Your task to perform on an android device: install app "Indeed Job Search" Image 0: 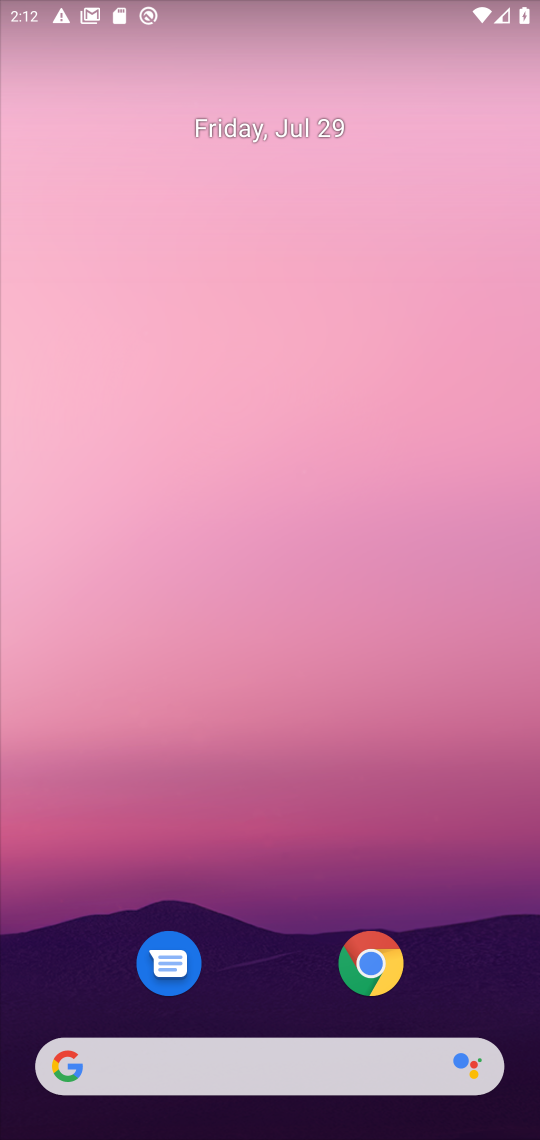
Step 0: drag from (289, 962) to (236, 7)
Your task to perform on an android device: install app "Indeed Job Search" Image 1: 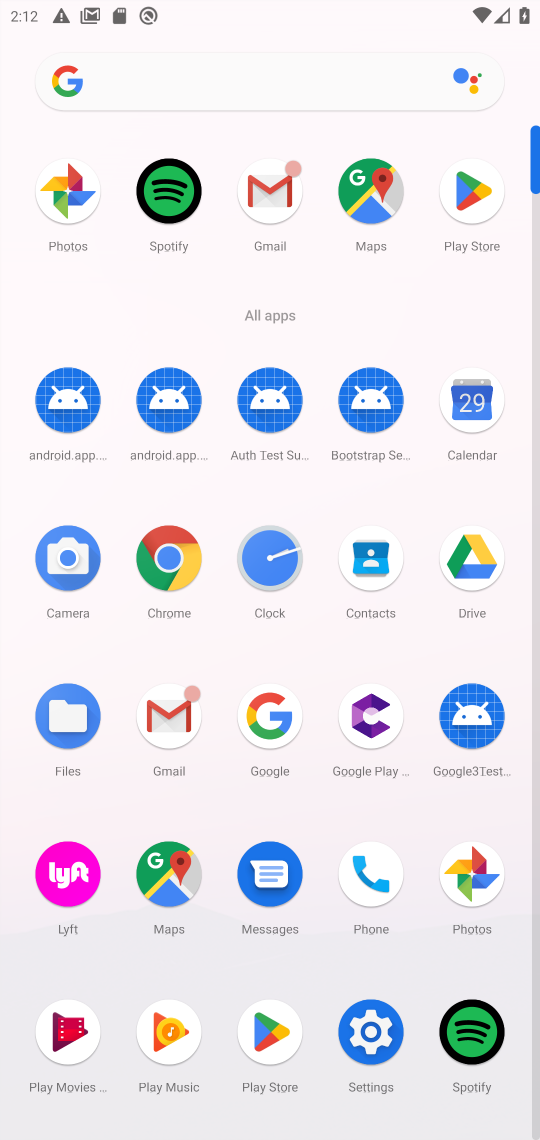
Step 1: click (468, 200)
Your task to perform on an android device: install app "Indeed Job Search" Image 2: 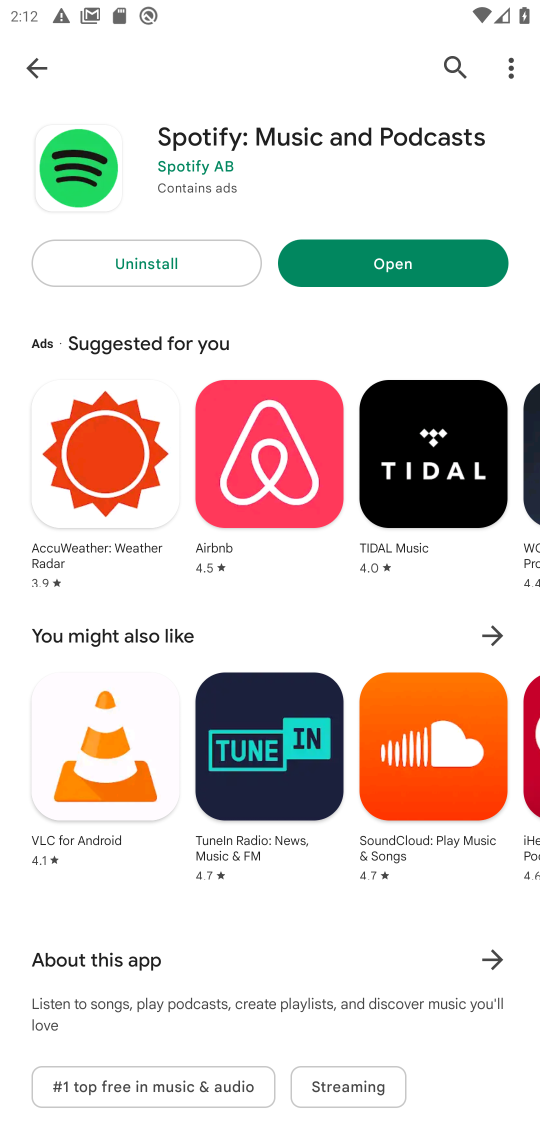
Step 2: click (444, 51)
Your task to perform on an android device: install app "Indeed Job Search" Image 3: 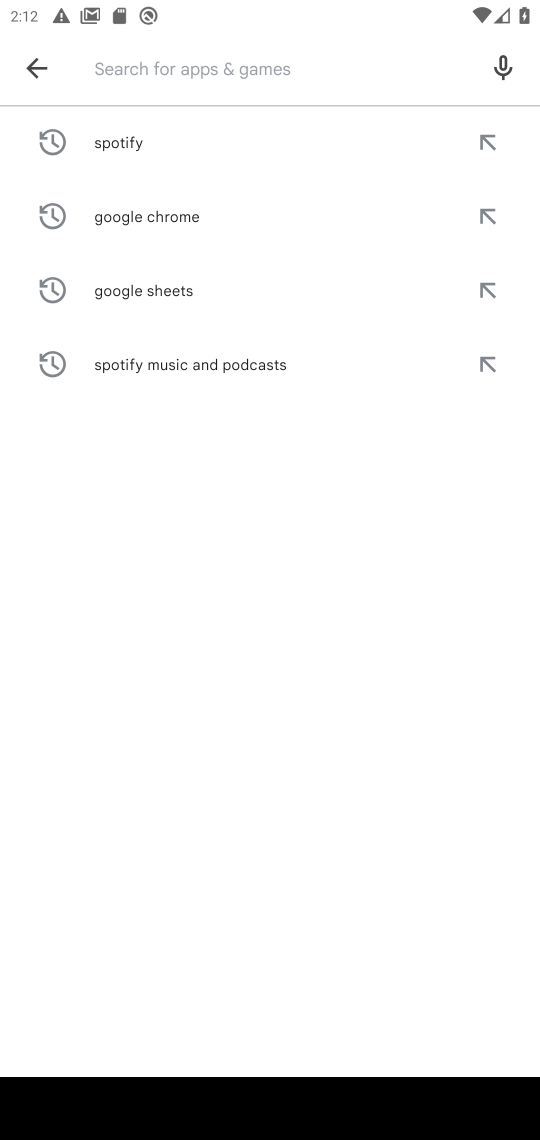
Step 3: type "indeed job search "
Your task to perform on an android device: install app "Indeed Job Search" Image 4: 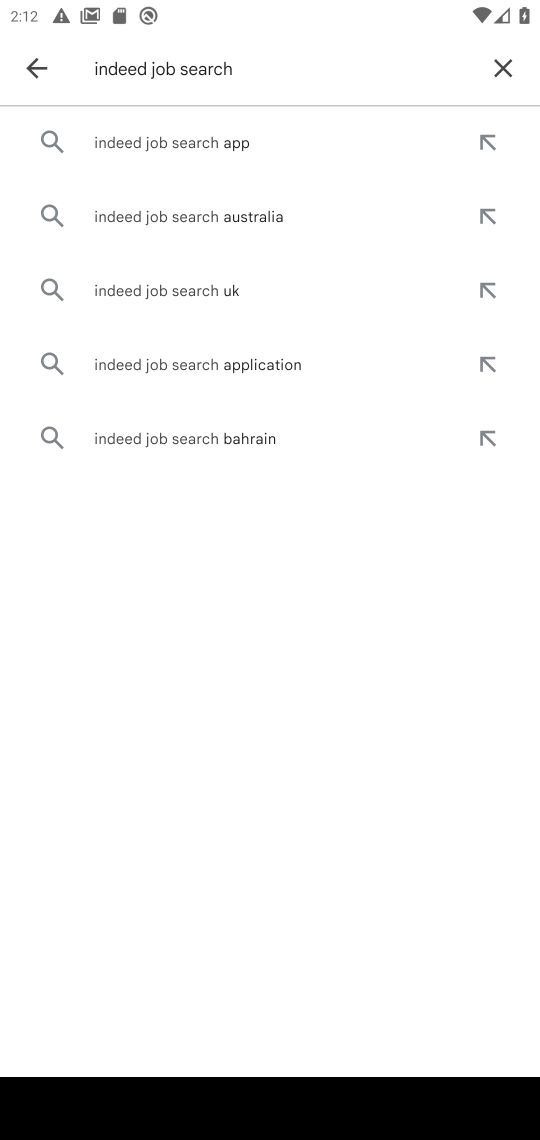
Step 4: click (230, 151)
Your task to perform on an android device: install app "Indeed Job Search" Image 5: 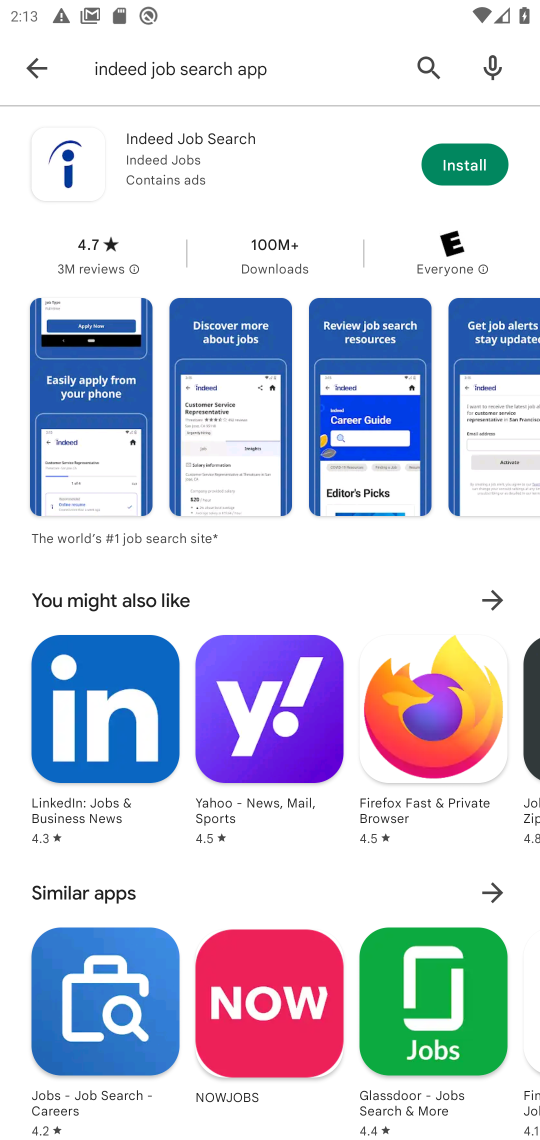
Step 5: click (158, 127)
Your task to perform on an android device: install app "Indeed Job Search" Image 6: 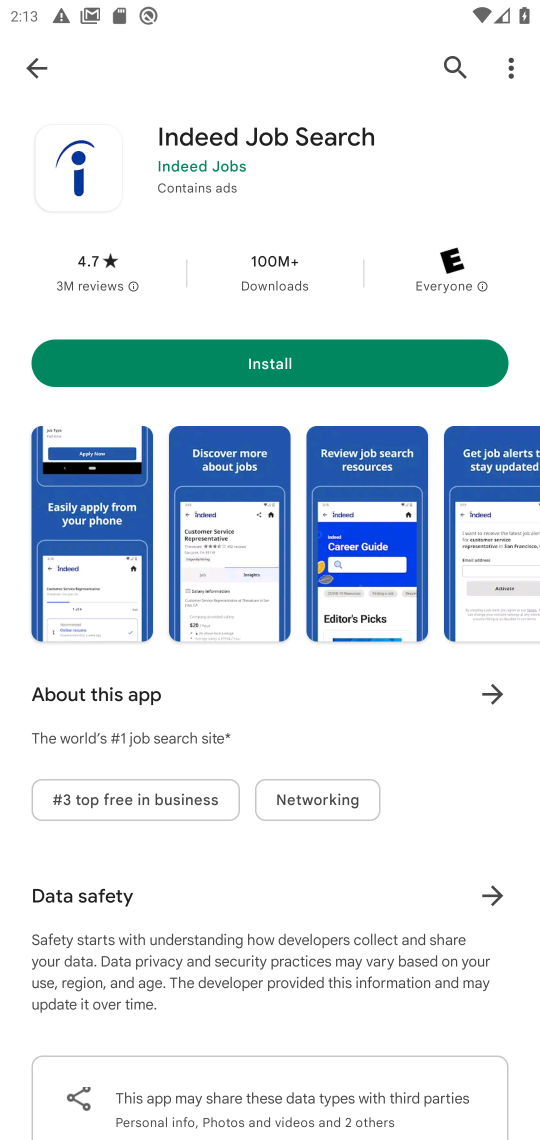
Step 6: click (245, 354)
Your task to perform on an android device: install app "Indeed Job Search" Image 7: 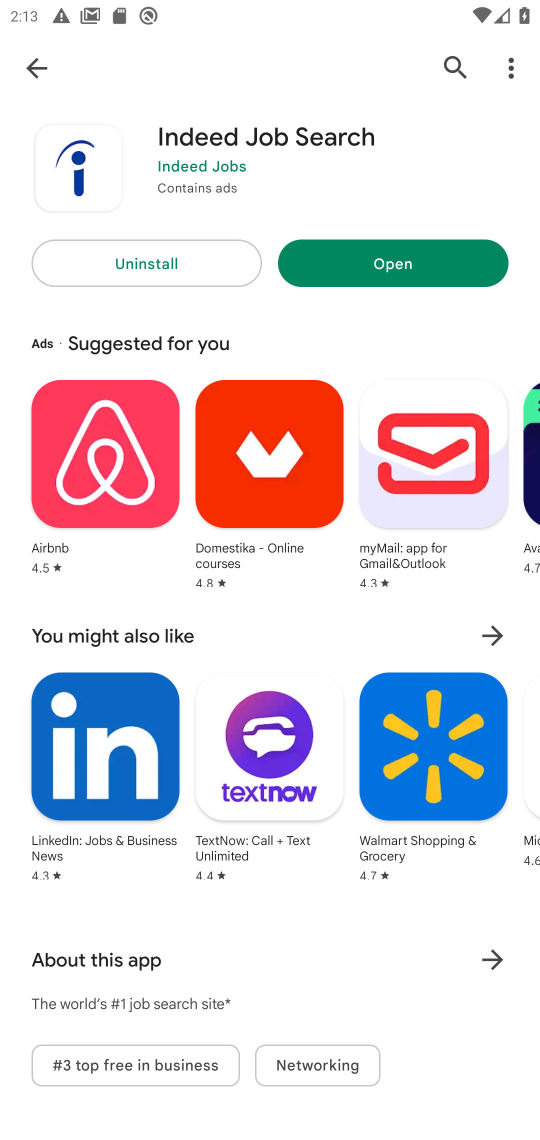
Step 7: task complete